Your task to perform on an android device: turn on data saver in the chrome app Image 0: 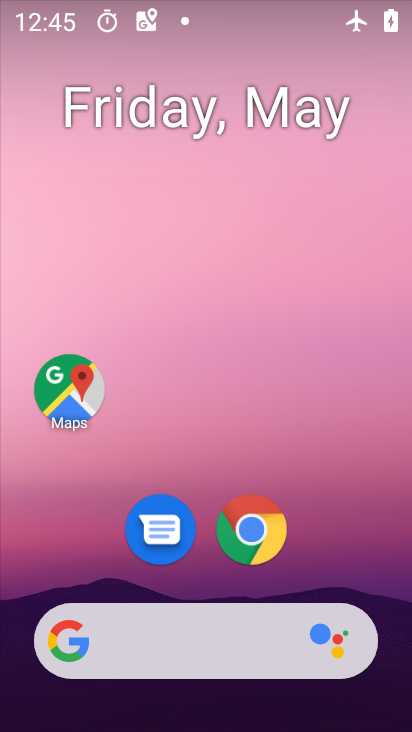
Step 0: drag from (228, 460) to (236, 43)
Your task to perform on an android device: turn on data saver in the chrome app Image 1: 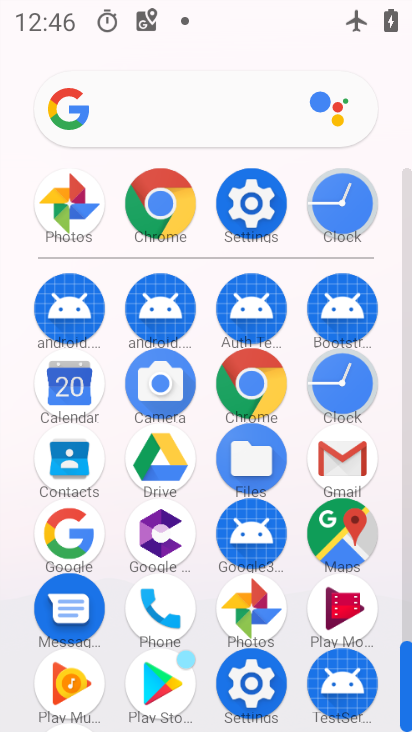
Step 1: click (167, 219)
Your task to perform on an android device: turn on data saver in the chrome app Image 2: 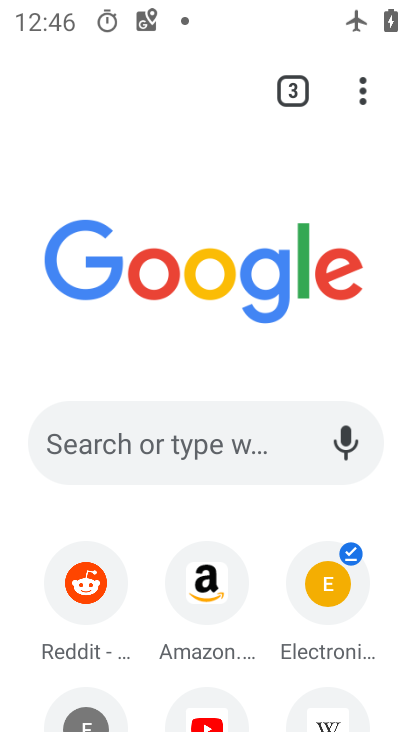
Step 2: click (364, 96)
Your task to perform on an android device: turn on data saver in the chrome app Image 3: 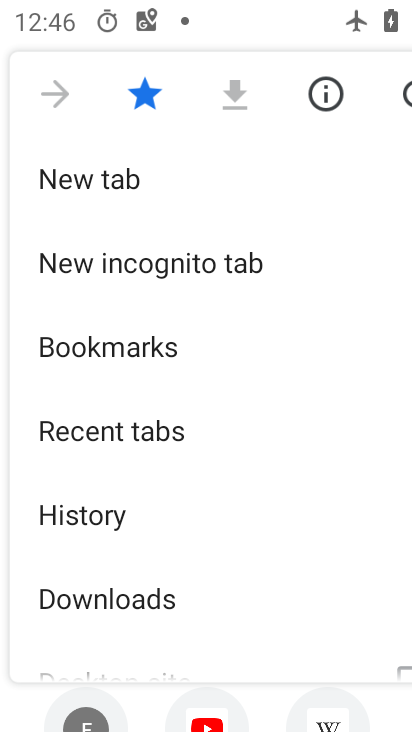
Step 3: drag from (178, 380) to (127, 95)
Your task to perform on an android device: turn on data saver in the chrome app Image 4: 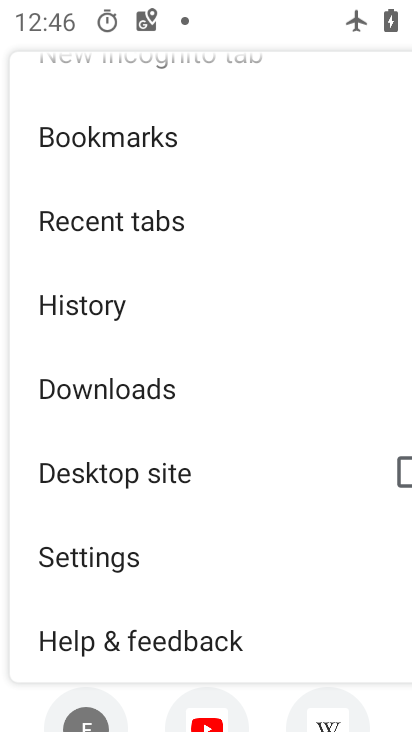
Step 4: click (148, 552)
Your task to perform on an android device: turn on data saver in the chrome app Image 5: 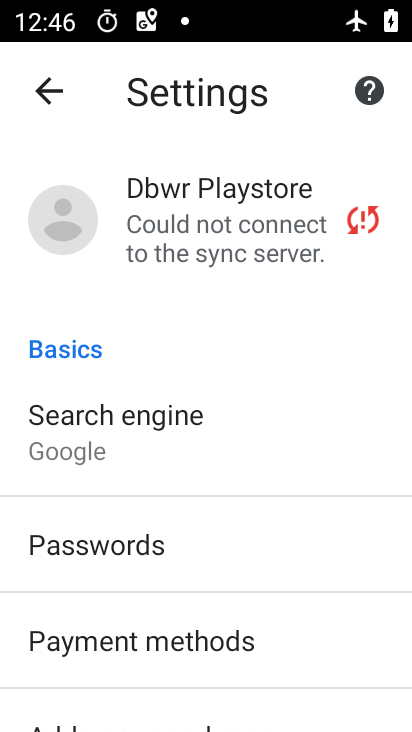
Step 5: drag from (147, 523) to (82, 81)
Your task to perform on an android device: turn on data saver in the chrome app Image 6: 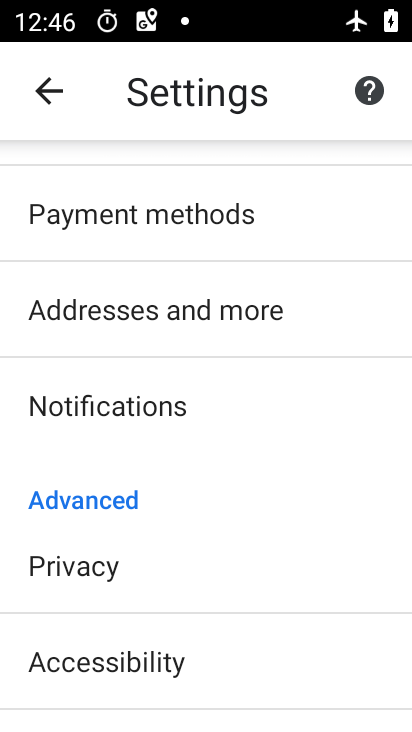
Step 6: drag from (212, 562) to (144, 196)
Your task to perform on an android device: turn on data saver in the chrome app Image 7: 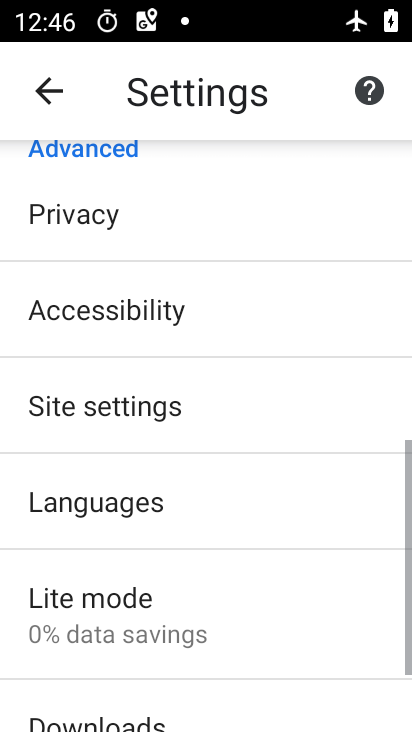
Step 7: click (129, 139)
Your task to perform on an android device: turn on data saver in the chrome app Image 8: 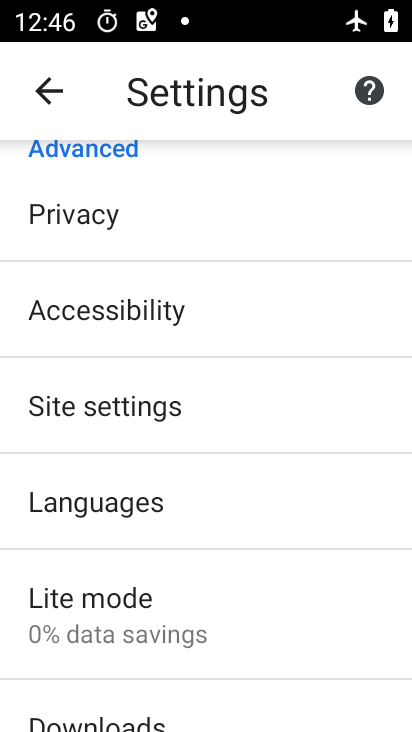
Step 8: drag from (91, 554) to (40, 199)
Your task to perform on an android device: turn on data saver in the chrome app Image 9: 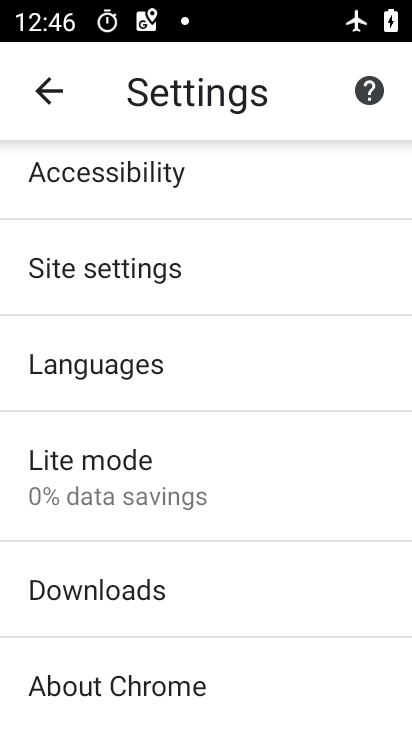
Step 9: drag from (123, 619) to (16, 123)
Your task to perform on an android device: turn on data saver in the chrome app Image 10: 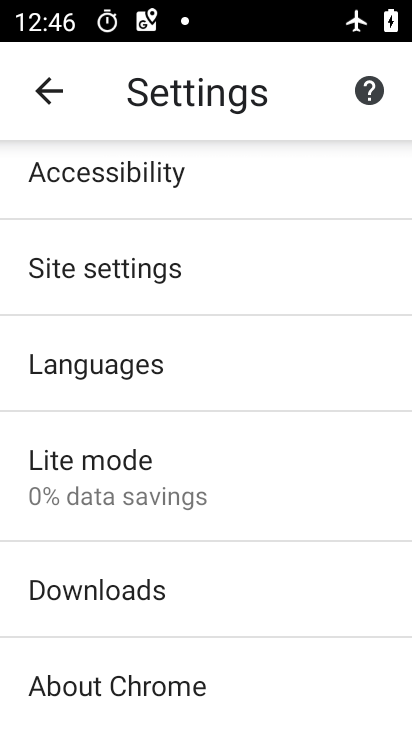
Step 10: drag from (157, 509) to (0, 135)
Your task to perform on an android device: turn on data saver in the chrome app Image 11: 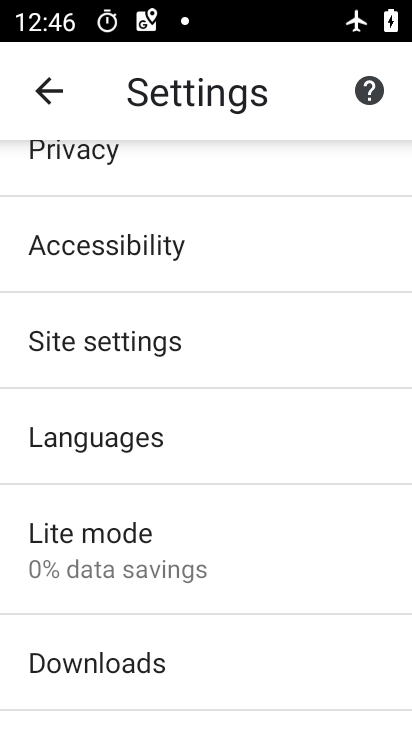
Step 11: click (117, 533)
Your task to perform on an android device: turn on data saver in the chrome app Image 12: 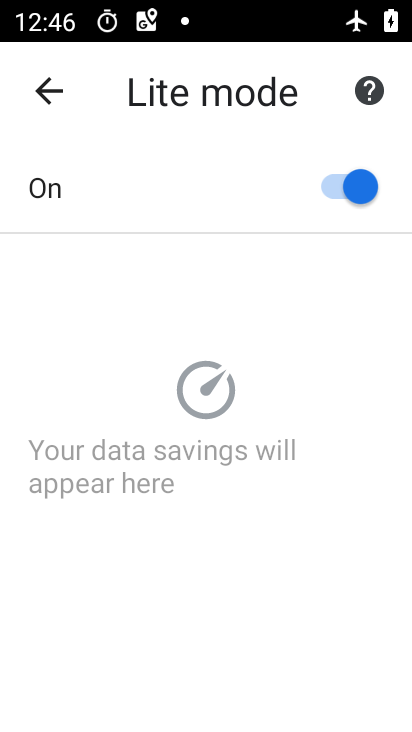
Step 12: task complete